Your task to perform on an android device: find which apps use the phone's location Image 0: 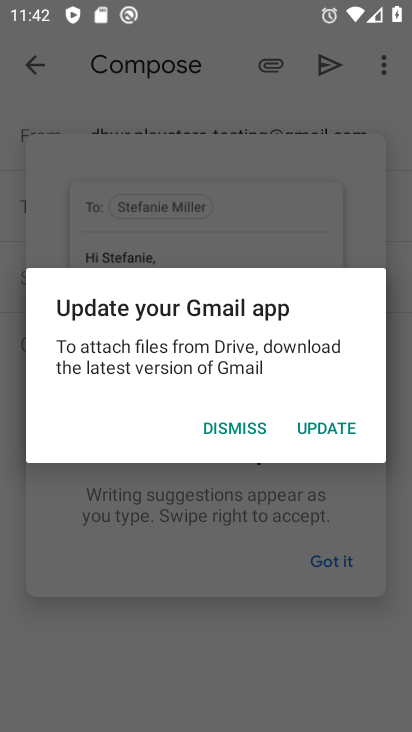
Step 0: press home button
Your task to perform on an android device: find which apps use the phone's location Image 1: 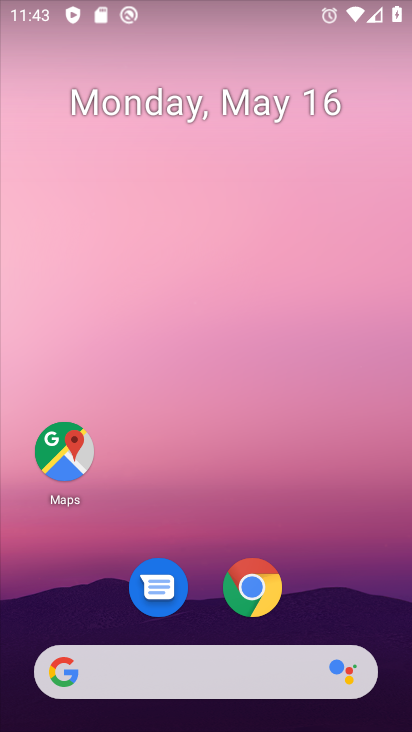
Step 1: drag from (376, 615) to (305, 18)
Your task to perform on an android device: find which apps use the phone's location Image 2: 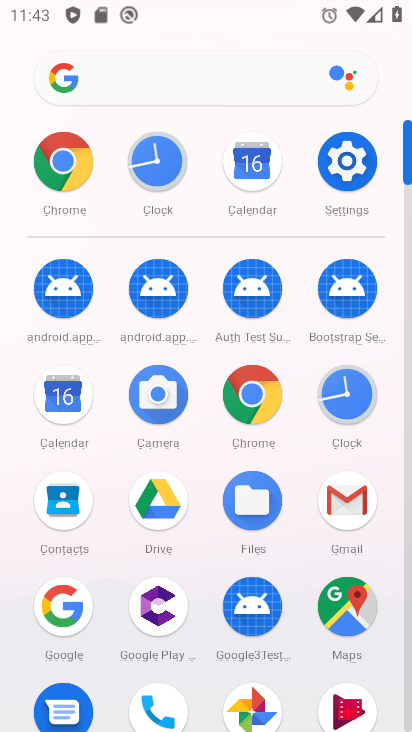
Step 2: click (332, 159)
Your task to perform on an android device: find which apps use the phone's location Image 3: 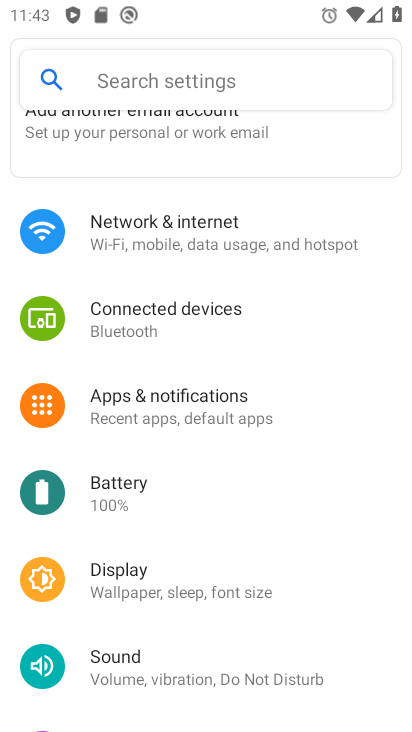
Step 3: drag from (170, 607) to (180, 284)
Your task to perform on an android device: find which apps use the phone's location Image 4: 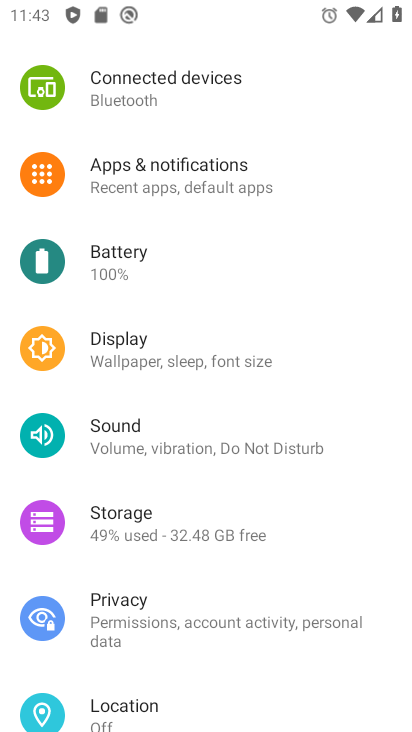
Step 4: click (137, 708)
Your task to perform on an android device: find which apps use the phone's location Image 5: 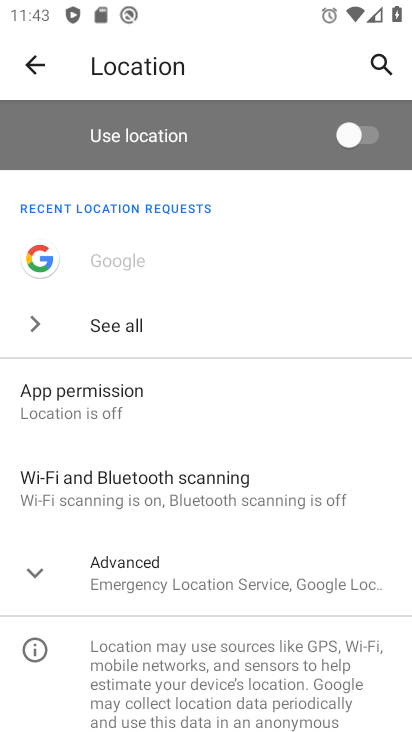
Step 5: click (167, 429)
Your task to perform on an android device: find which apps use the phone's location Image 6: 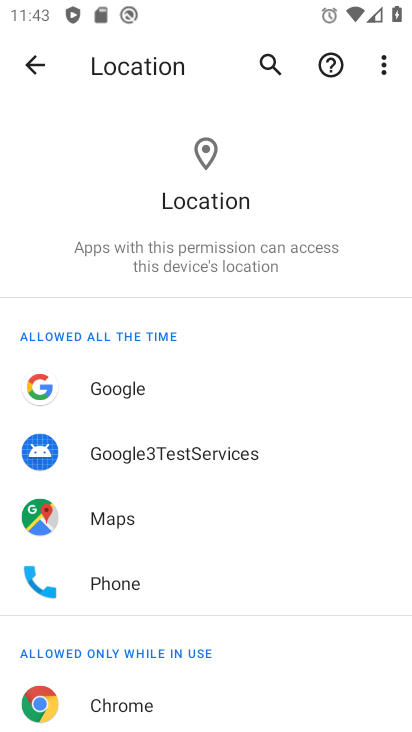
Step 6: click (175, 593)
Your task to perform on an android device: find which apps use the phone's location Image 7: 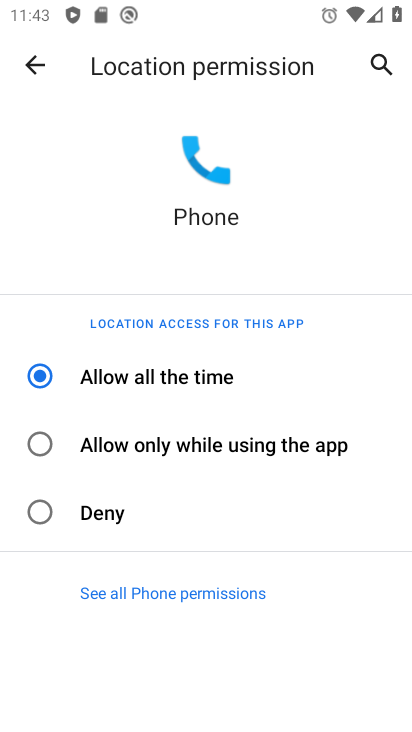
Step 7: task complete